Your task to perform on an android device: Open calendar and show me the first week of next month Image 0: 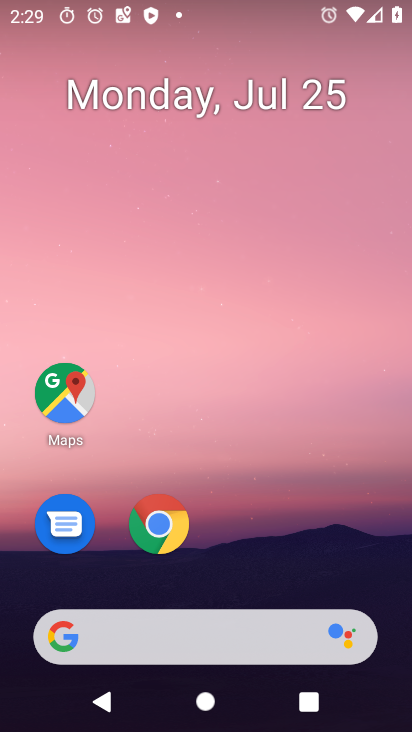
Step 0: press home button
Your task to perform on an android device: Open calendar and show me the first week of next month Image 1: 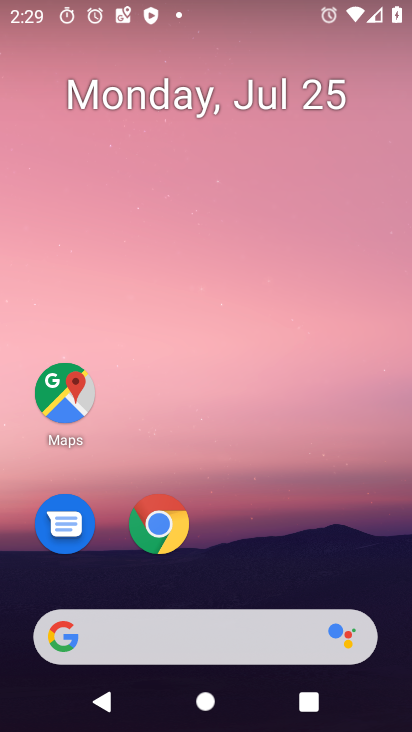
Step 1: drag from (326, 579) to (165, 74)
Your task to perform on an android device: Open calendar and show me the first week of next month Image 2: 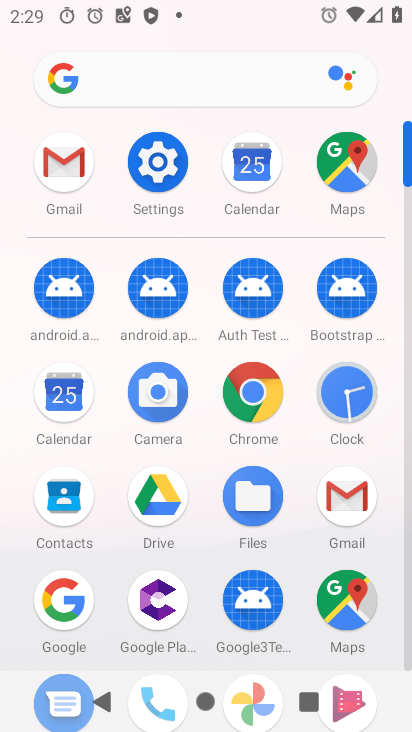
Step 2: click (246, 161)
Your task to perform on an android device: Open calendar and show me the first week of next month Image 3: 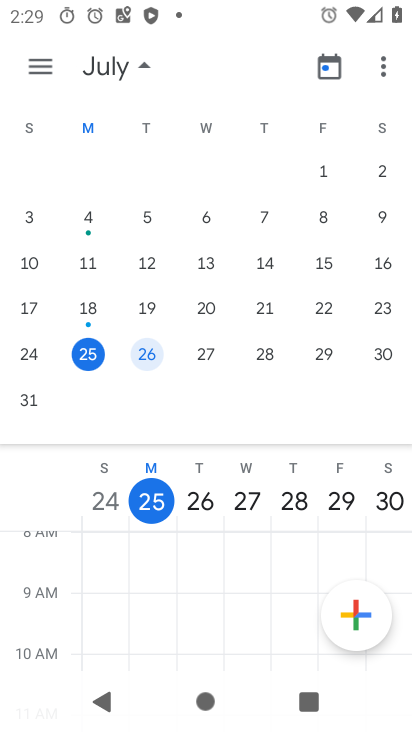
Step 3: drag from (309, 298) to (11, 340)
Your task to perform on an android device: Open calendar and show me the first week of next month Image 4: 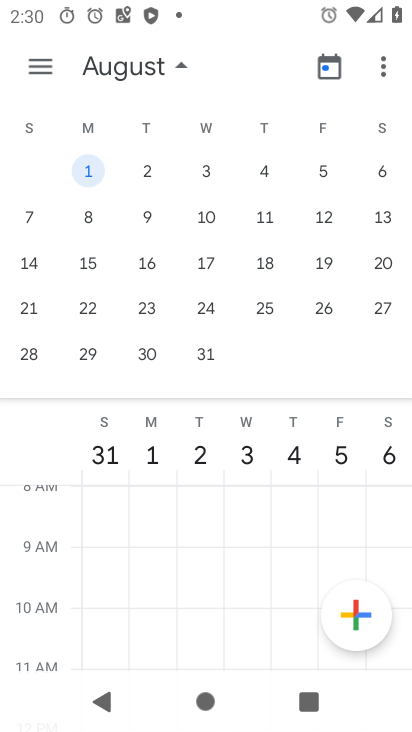
Step 4: click (82, 175)
Your task to perform on an android device: Open calendar and show me the first week of next month Image 5: 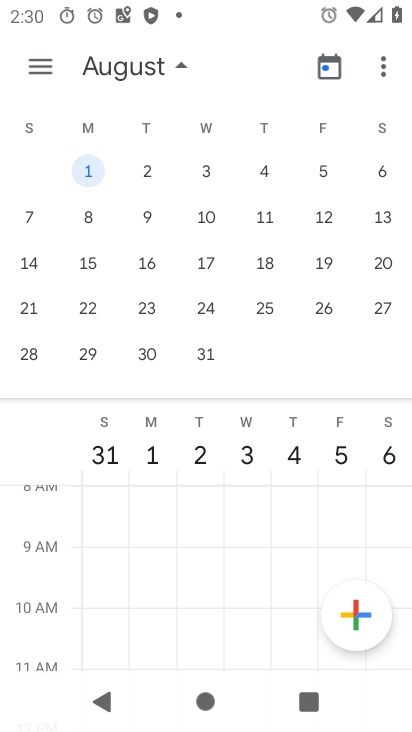
Step 5: click (145, 178)
Your task to perform on an android device: Open calendar and show me the first week of next month Image 6: 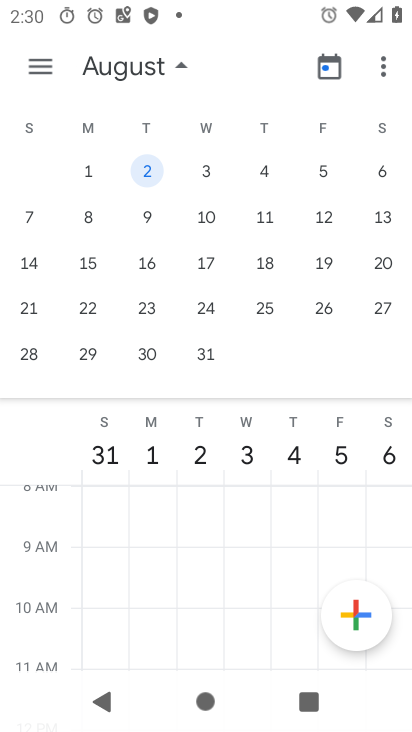
Step 6: click (210, 169)
Your task to perform on an android device: Open calendar and show me the first week of next month Image 7: 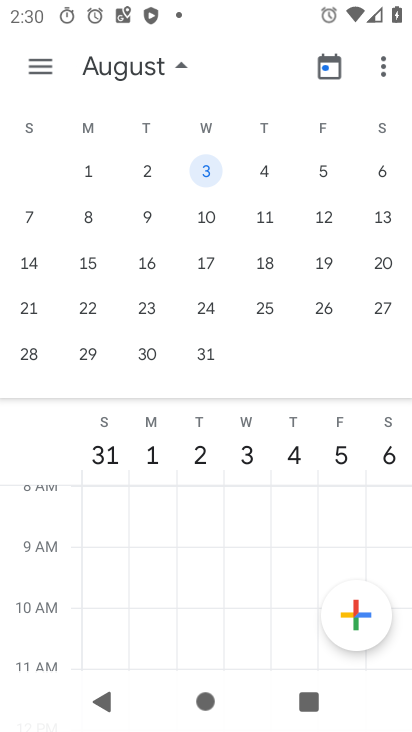
Step 7: click (269, 174)
Your task to perform on an android device: Open calendar and show me the first week of next month Image 8: 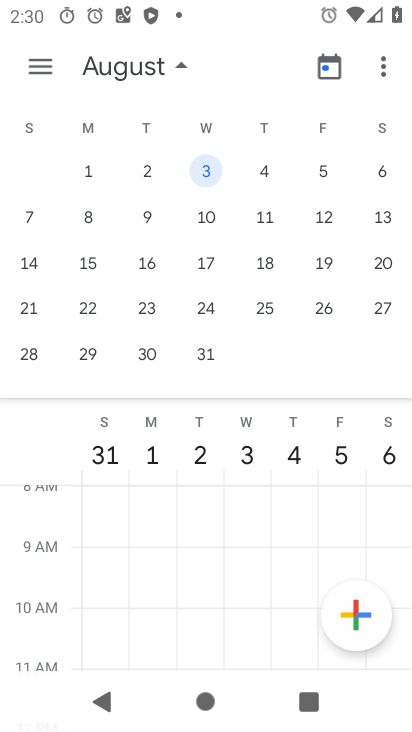
Step 8: click (261, 172)
Your task to perform on an android device: Open calendar and show me the first week of next month Image 9: 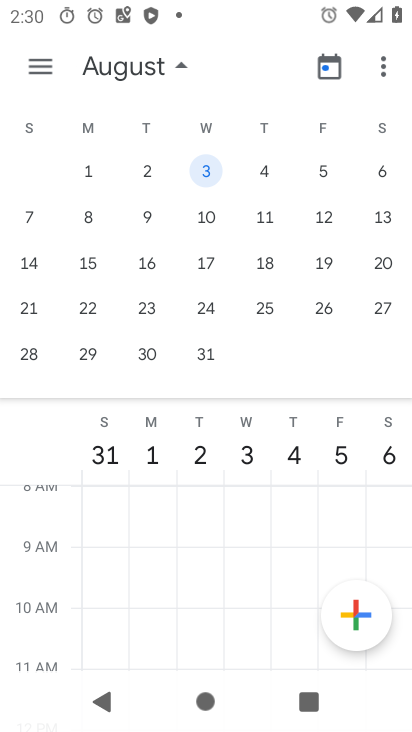
Step 9: click (260, 172)
Your task to perform on an android device: Open calendar and show me the first week of next month Image 10: 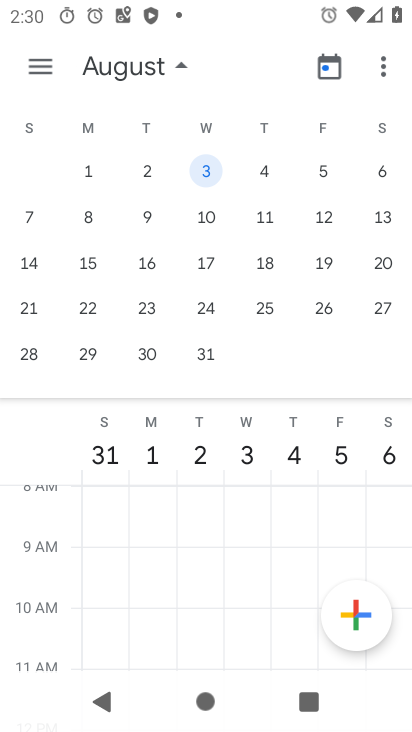
Step 10: click (266, 174)
Your task to perform on an android device: Open calendar and show me the first week of next month Image 11: 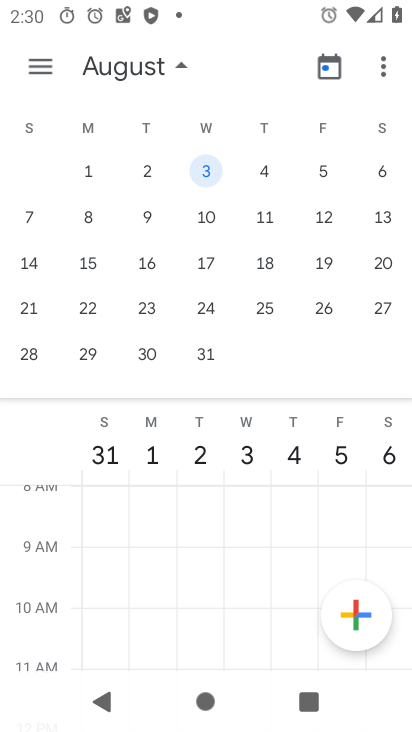
Step 11: click (333, 163)
Your task to perform on an android device: Open calendar and show me the first week of next month Image 12: 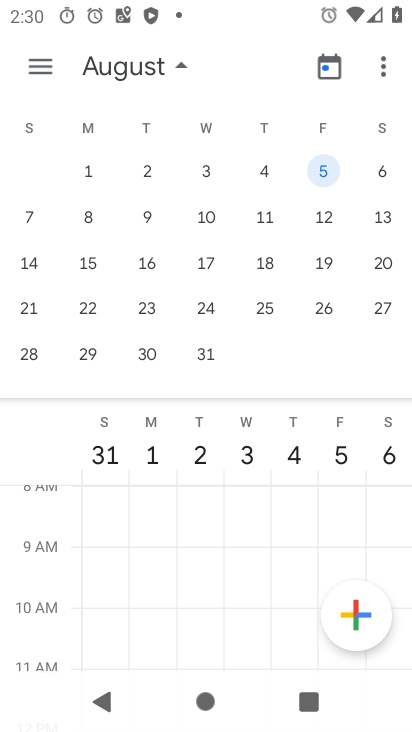
Step 12: click (385, 177)
Your task to perform on an android device: Open calendar and show me the first week of next month Image 13: 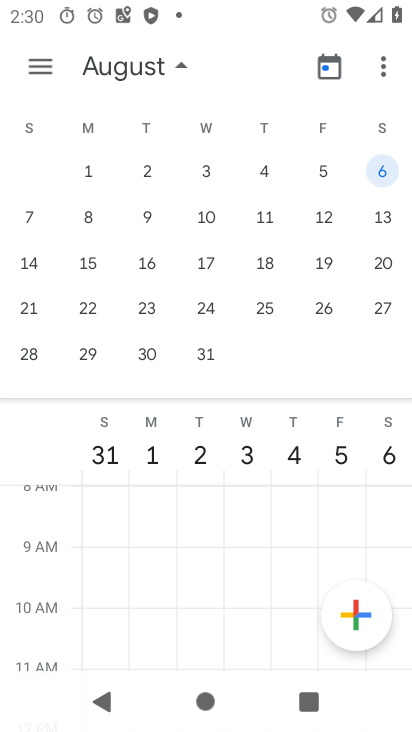
Step 13: click (18, 215)
Your task to perform on an android device: Open calendar and show me the first week of next month Image 14: 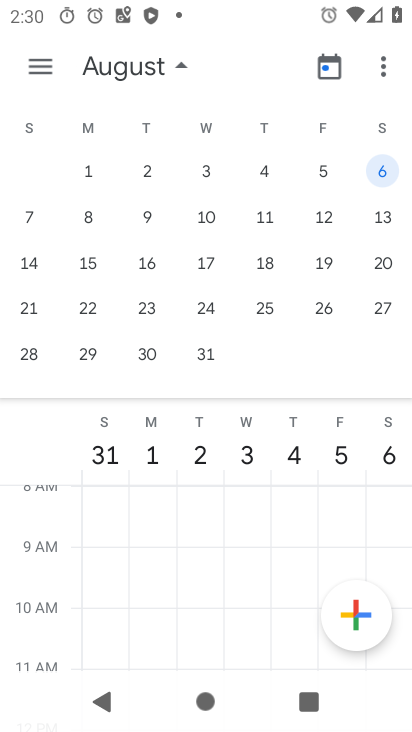
Step 14: click (25, 218)
Your task to perform on an android device: Open calendar and show me the first week of next month Image 15: 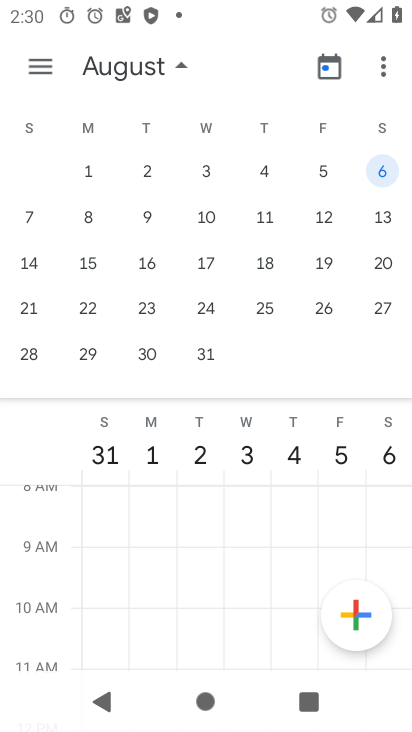
Step 15: click (31, 221)
Your task to perform on an android device: Open calendar and show me the first week of next month Image 16: 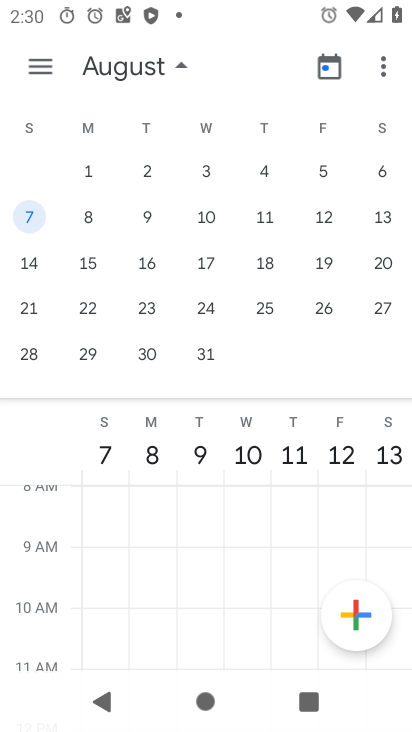
Step 16: task complete